Your task to perform on an android device: Open display settings Image 0: 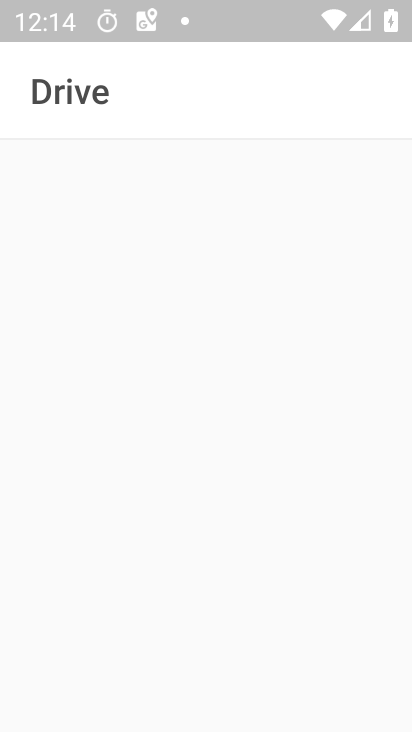
Step 0: drag from (223, 564) to (309, 117)
Your task to perform on an android device: Open display settings Image 1: 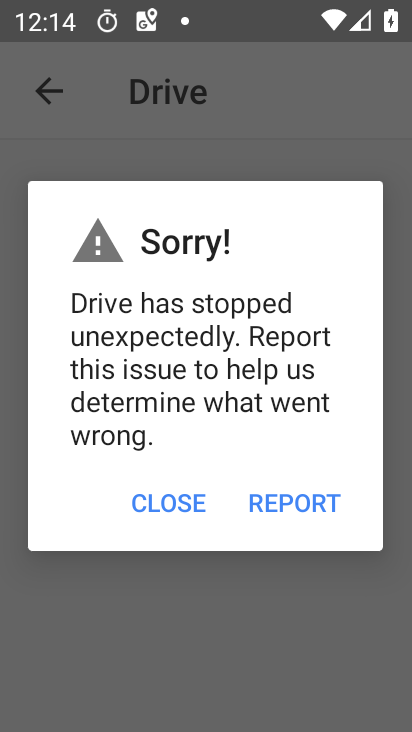
Step 1: press home button
Your task to perform on an android device: Open display settings Image 2: 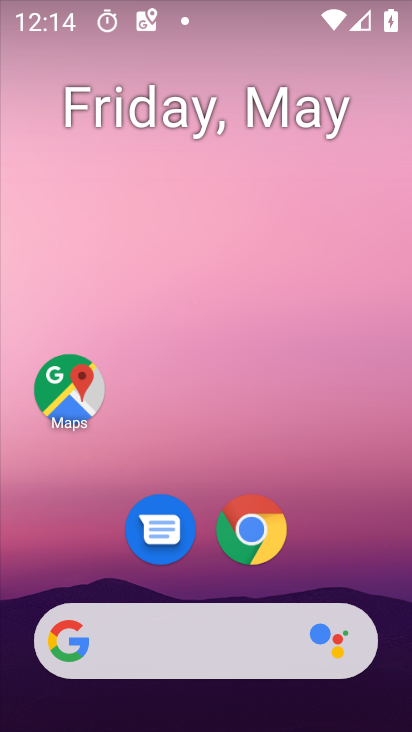
Step 2: drag from (194, 609) to (336, 24)
Your task to perform on an android device: Open display settings Image 3: 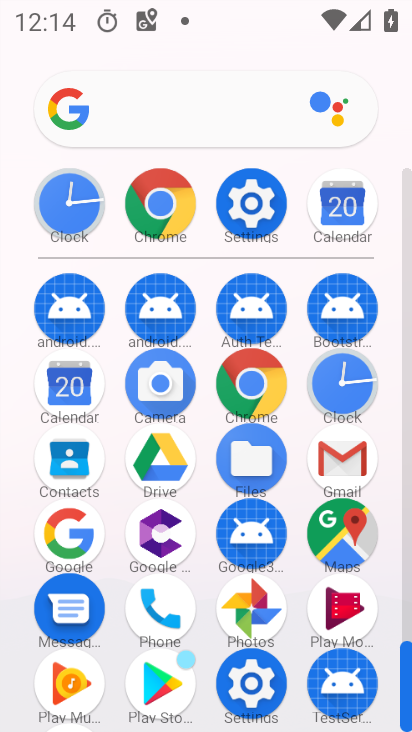
Step 3: click (262, 210)
Your task to perform on an android device: Open display settings Image 4: 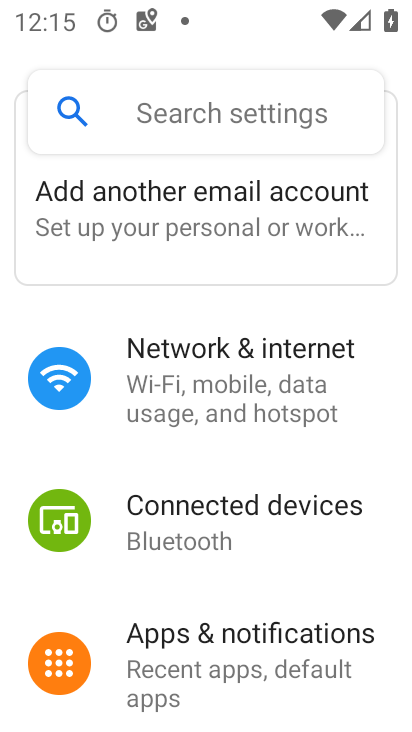
Step 4: drag from (204, 586) to (293, 8)
Your task to perform on an android device: Open display settings Image 5: 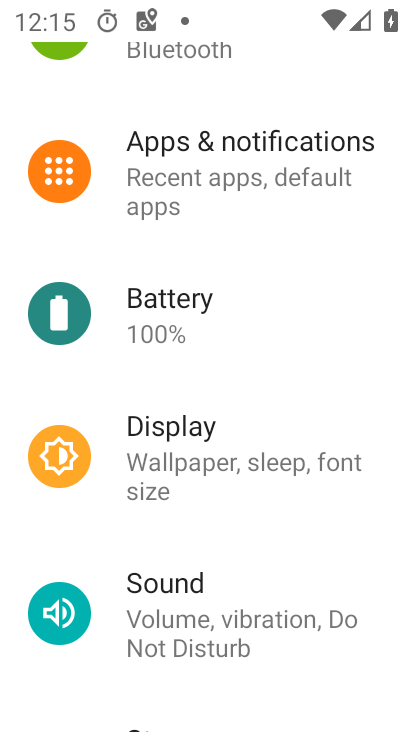
Step 5: click (228, 467)
Your task to perform on an android device: Open display settings Image 6: 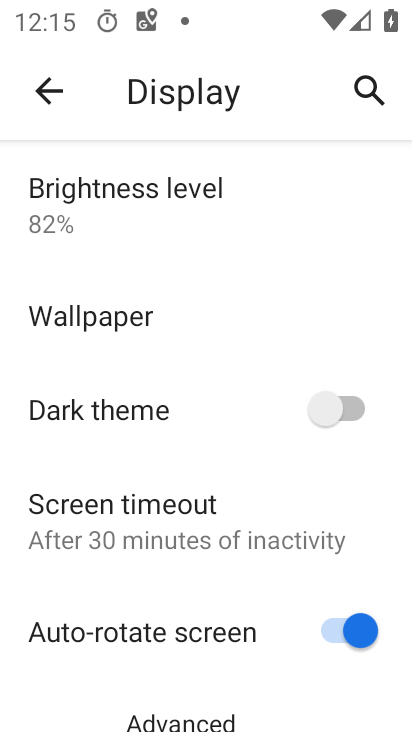
Step 6: task complete